Your task to perform on an android device: Turn off the flashlight Image 0: 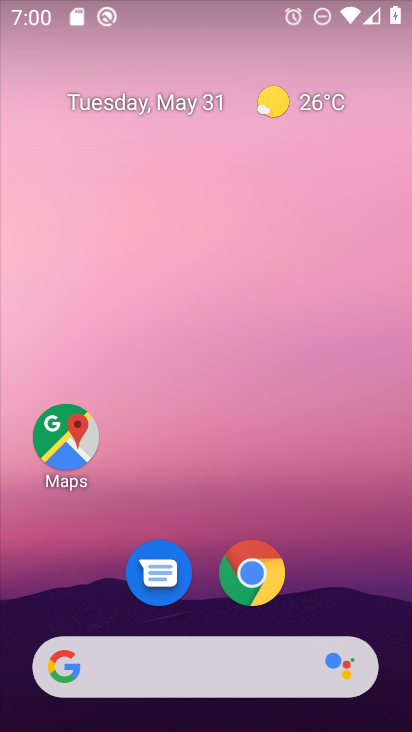
Step 0: drag from (380, 630) to (301, 91)
Your task to perform on an android device: Turn off the flashlight Image 1: 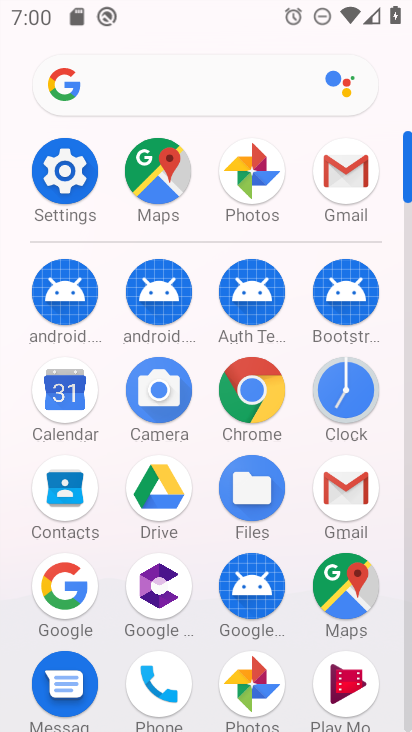
Step 1: click (71, 154)
Your task to perform on an android device: Turn off the flashlight Image 2: 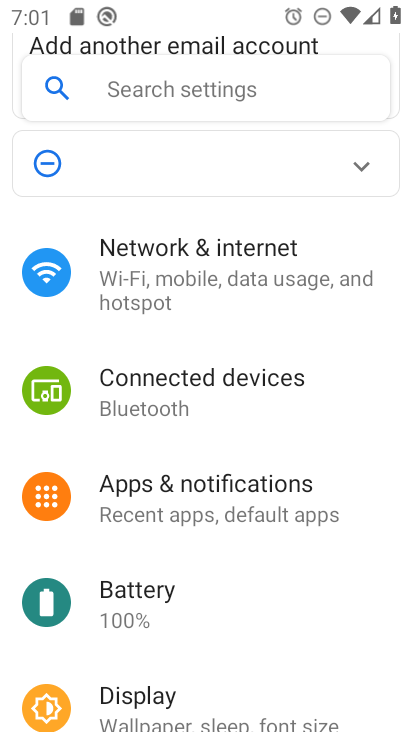
Step 2: task complete